Your task to perform on an android device: Show me recent news Image 0: 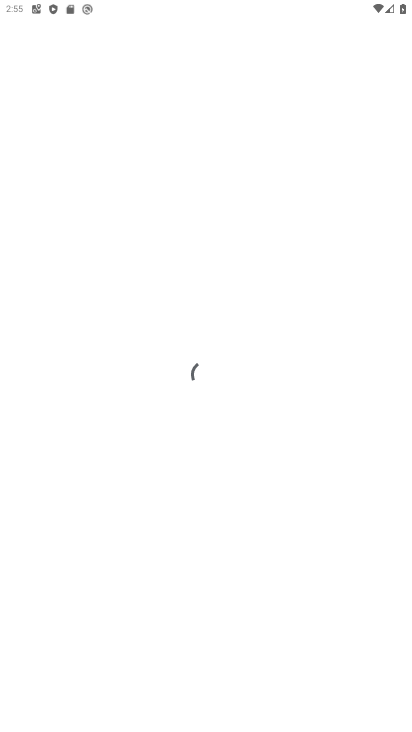
Step 0: drag from (352, 622) to (331, 293)
Your task to perform on an android device: Show me recent news Image 1: 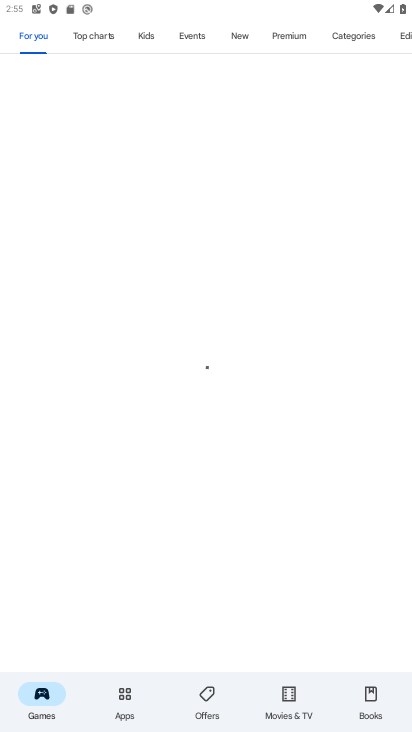
Step 1: press home button
Your task to perform on an android device: Show me recent news Image 2: 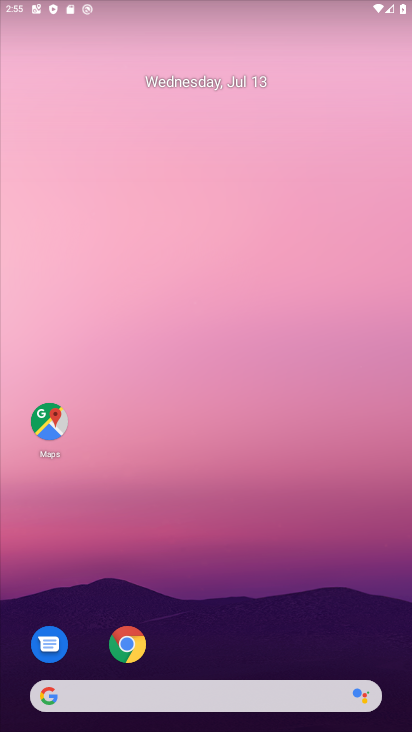
Step 2: drag from (305, 621) to (320, 0)
Your task to perform on an android device: Show me recent news Image 3: 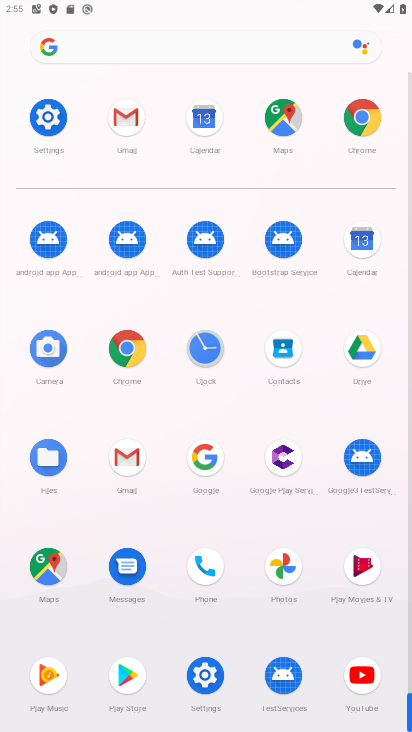
Step 3: click (361, 116)
Your task to perform on an android device: Show me recent news Image 4: 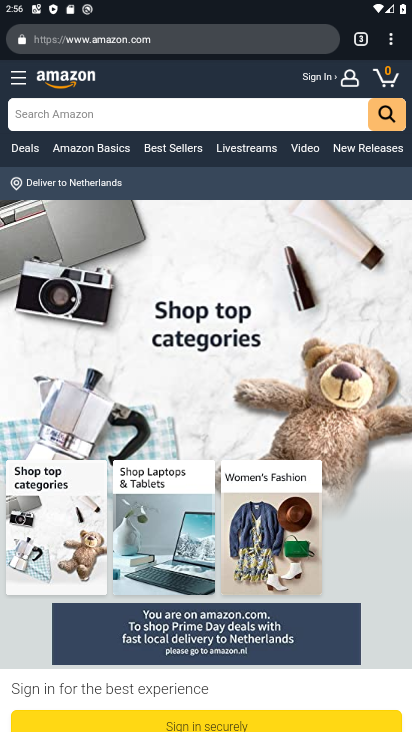
Step 4: click (306, 43)
Your task to perform on an android device: Show me recent news Image 5: 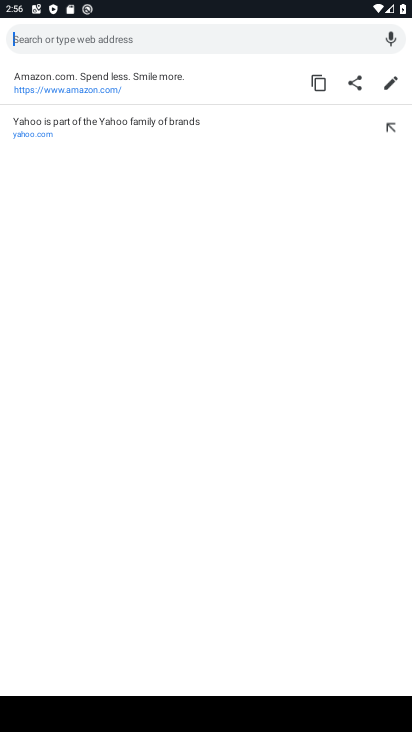
Step 5: type "news"
Your task to perform on an android device: Show me recent news Image 6: 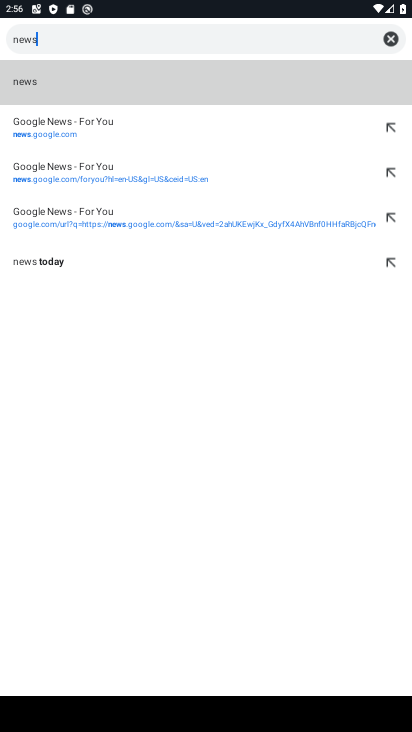
Step 6: click (39, 84)
Your task to perform on an android device: Show me recent news Image 7: 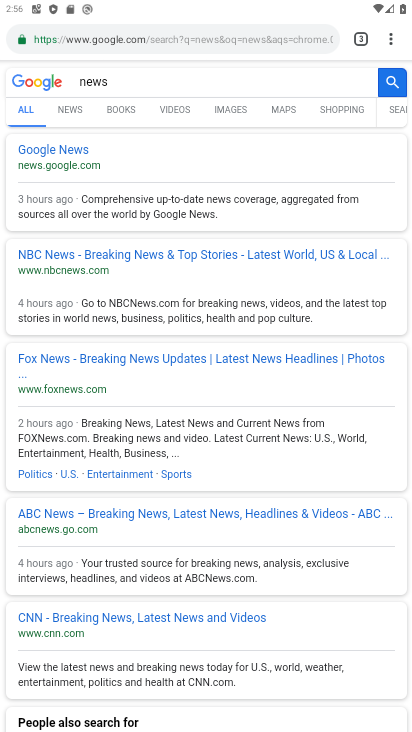
Step 7: click (87, 149)
Your task to perform on an android device: Show me recent news Image 8: 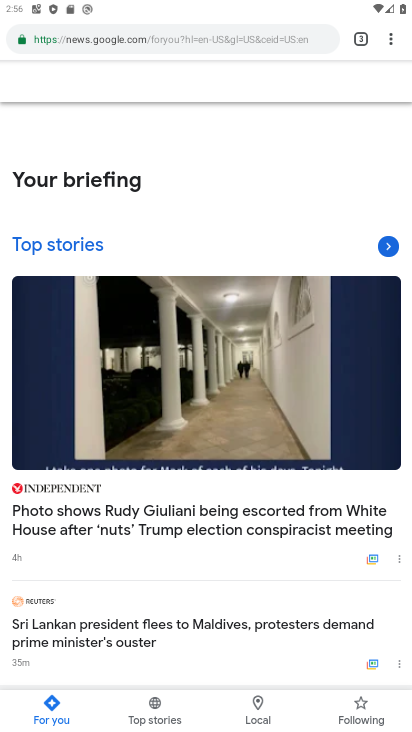
Step 8: task complete